Your task to perform on an android device: Go to eBay Image 0: 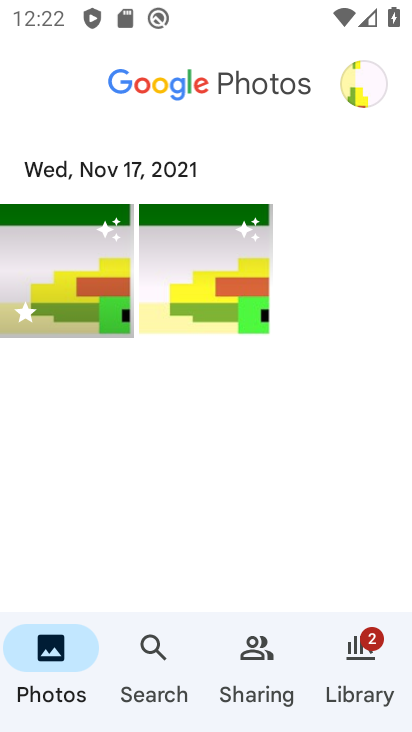
Step 0: press home button
Your task to perform on an android device: Go to eBay Image 1: 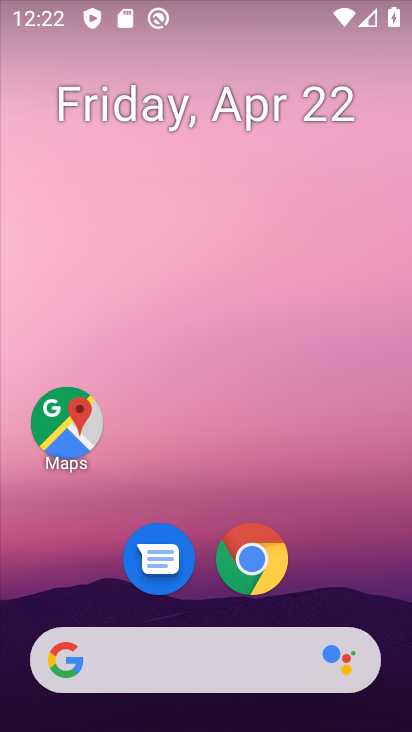
Step 1: drag from (349, 584) to (350, 152)
Your task to perform on an android device: Go to eBay Image 2: 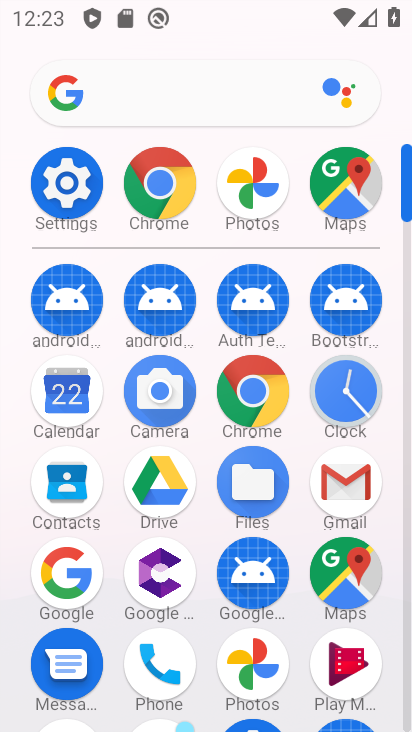
Step 2: click (264, 391)
Your task to perform on an android device: Go to eBay Image 3: 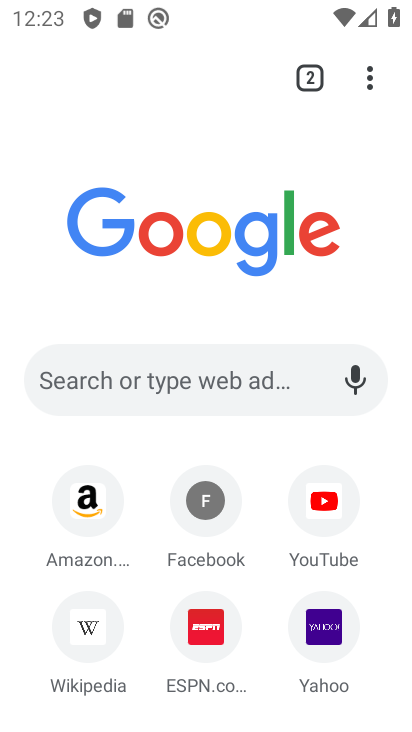
Step 3: drag from (376, 555) to (388, 393)
Your task to perform on an android device: Go to eBay Image 4: 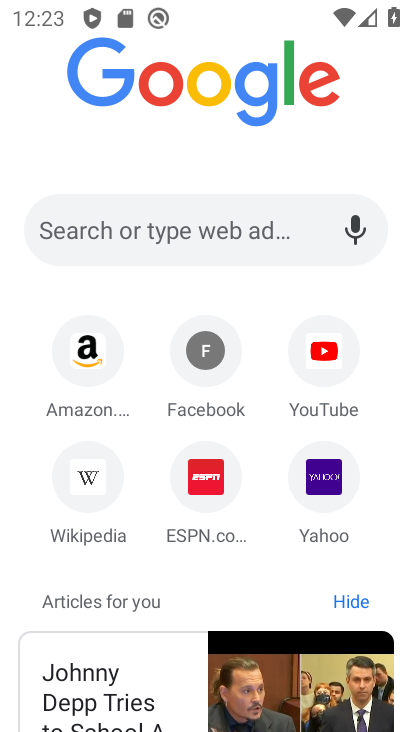
Step 4: click (212, 226)
Your task to perform on an android device: Go to eBay Image 5: 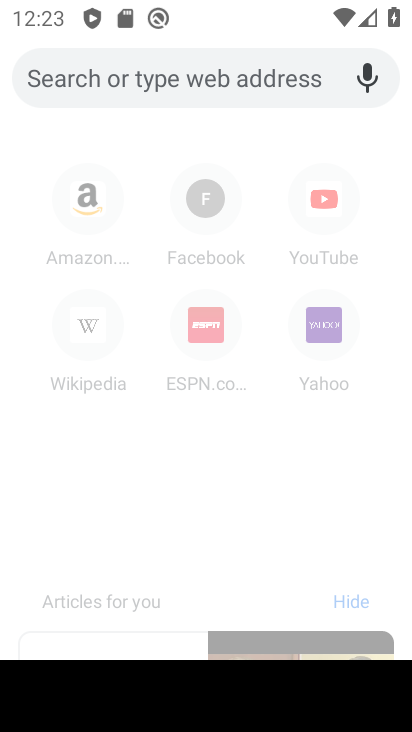
Step 5: type "ebay "
Your task to perform on an android device: Go to eBay Image 6: 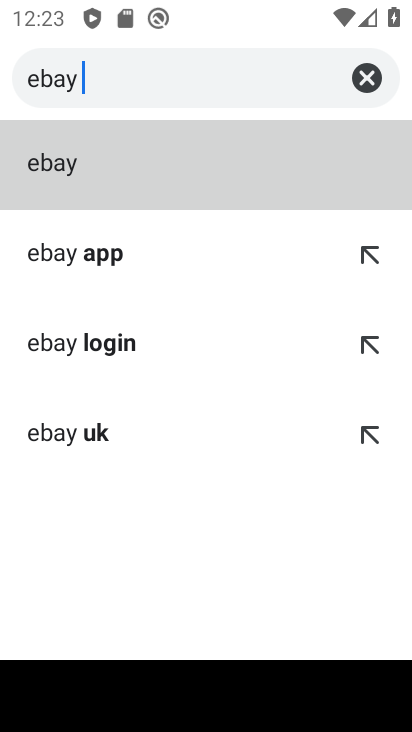
Step 6: click (266, 178)
Your task to perform on an android device: Go to eBay Image 7: 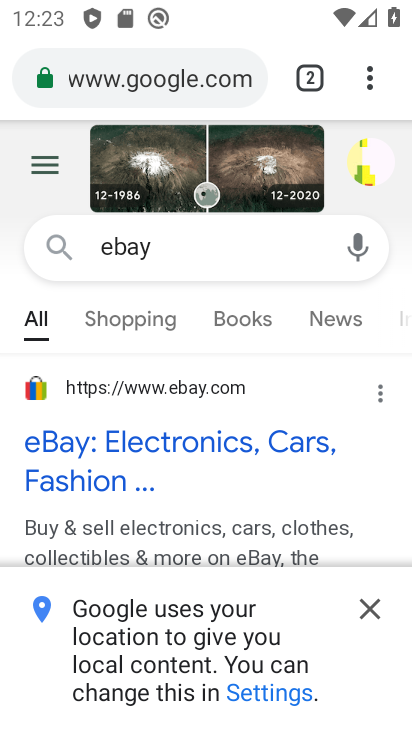
Step 7: task complete